Your task to perform on an android device: open app "Flipkart Online Shopping App" Image 0: 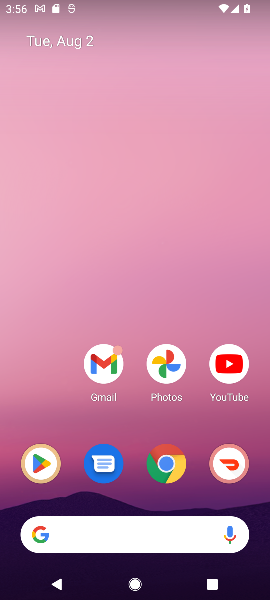
Step 0: click (41, 470)
Your task to perform on an android device: open app "Flipkart Online Shopping App" Image 1: 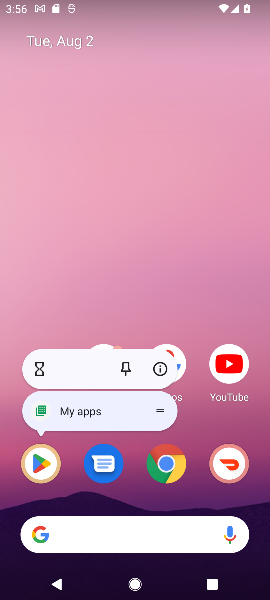
Step 1: click (35, 464)
Your task to perform on an android device: open app "Flipkart Online Shopping App" Image 2: 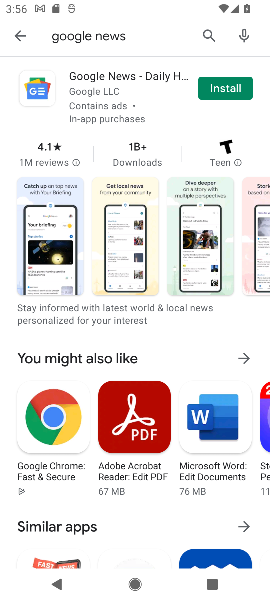
Step 2: click (204, 35)
Your task to perform on an android device: open app "Flipkart Online Shopping App" Image 3: 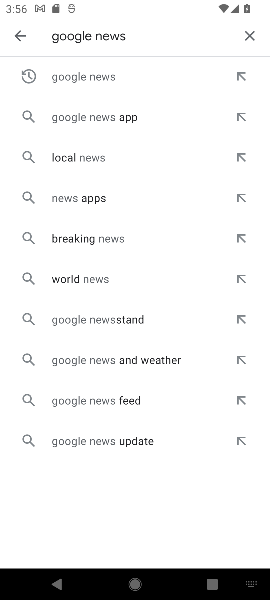
Step 3: click (249, 33)
Your task to perform on an android device: open app "Flipkart Online Shopping App" Image 4: 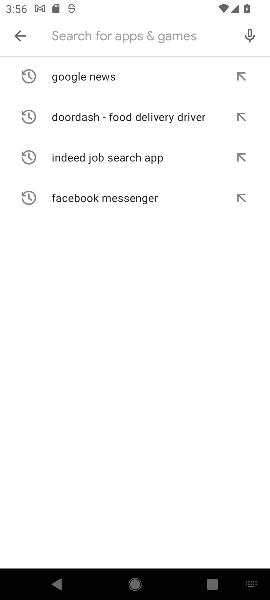
Step 4: type "Flipkart Online Shopping App"
Your task to perform on an android device: open app "Flipkart Online Shopping App" Image 5: 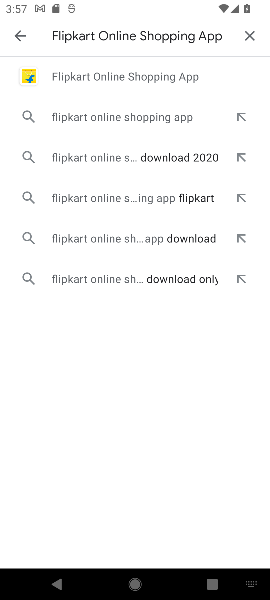
Step 5: click (157, 68)
Your task to perform on an android device: open app "Flipkart Online Shopping App" Image 6: 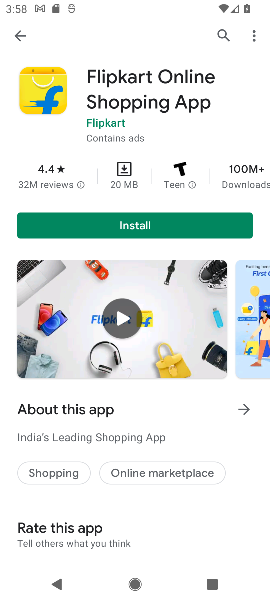
Step 6: task complete